Your task to perform on an android device: Empty the shopping cart on bestbuy.com. Search for usb-c on bestbuy.com, select the first entry, and add it to the cart. Image 0: 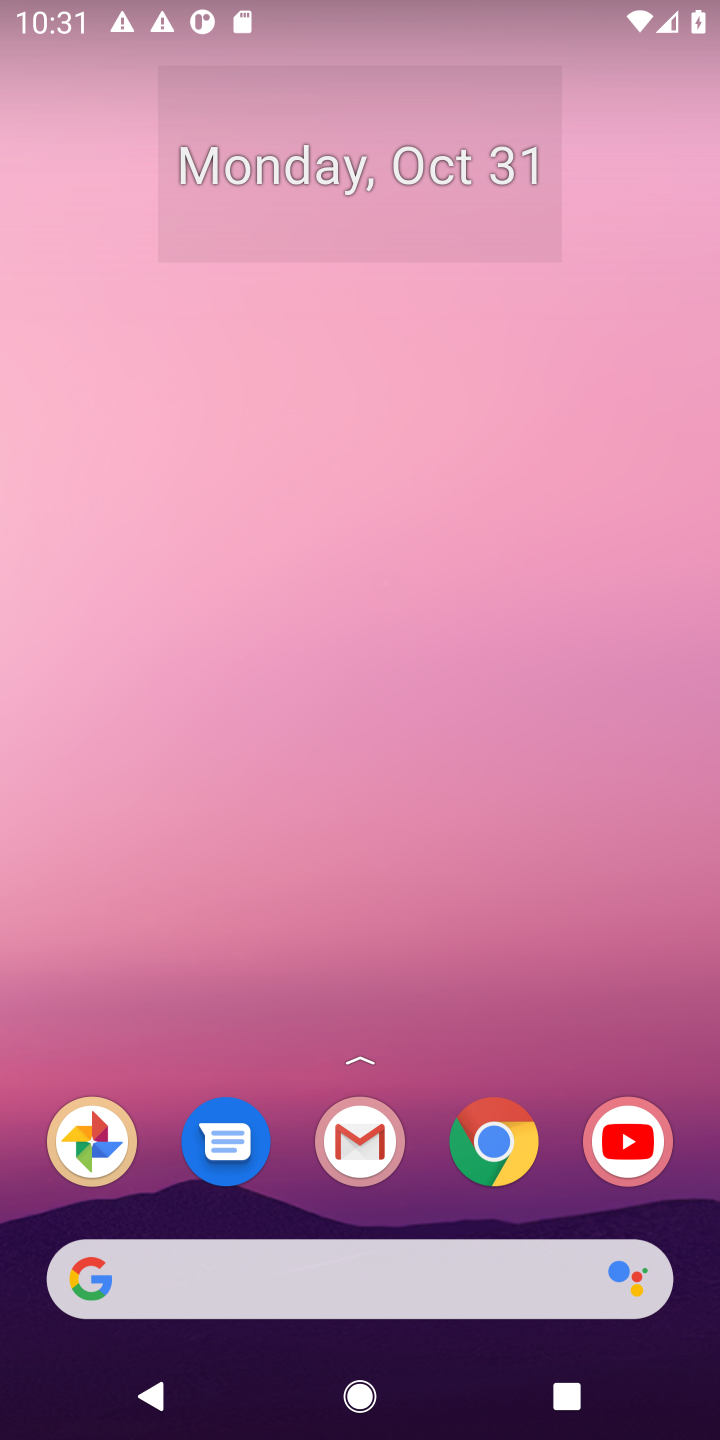
Step 0: press home button
Your task to perform on an android device: Empty the shopping cart on bestbuy.com. Search for usb-c on bestbuy.com, select the first entry, and add it to the cart. Image 1: 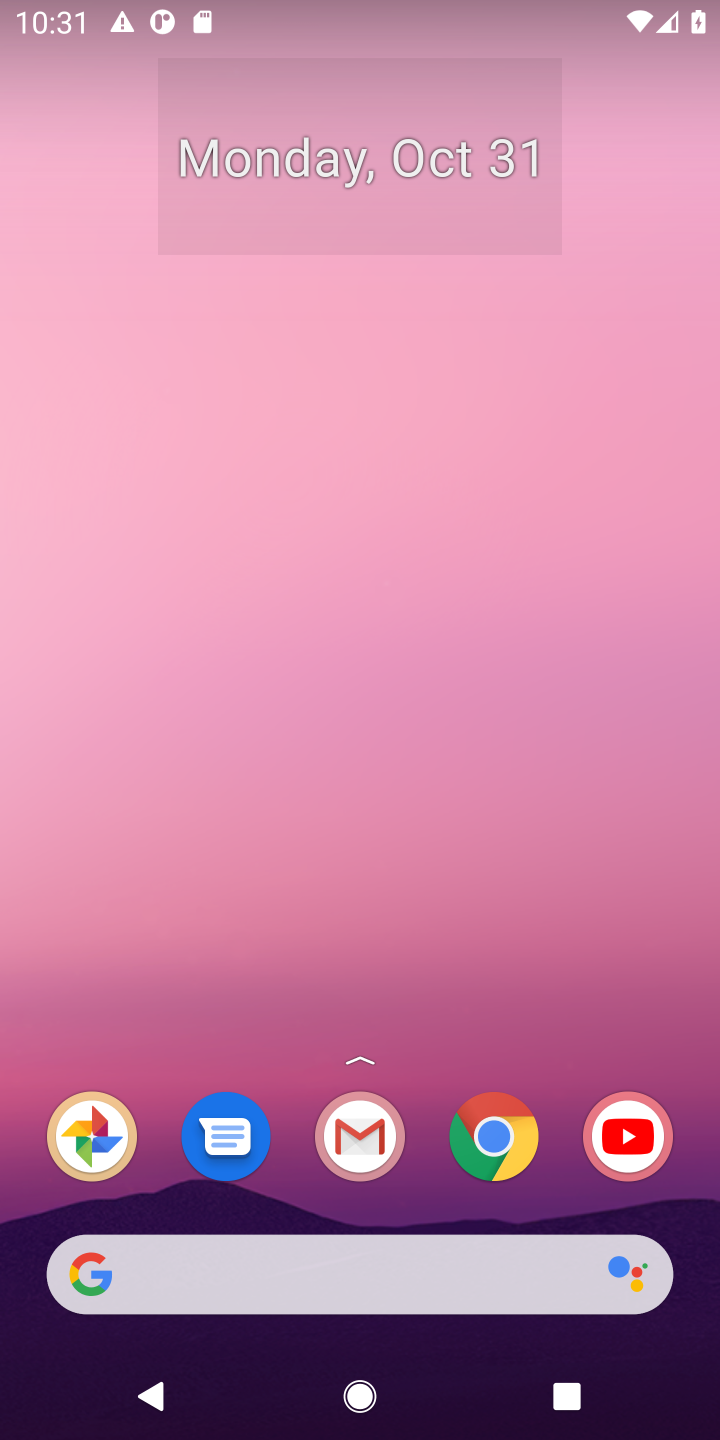
Step 1: click (145, 1285)
Your task to perform on an android device: Empty the shopping cart on bestbuy.com. Search for usb-c on bestbuy.com, select the first entry, and add it to the cart. Image 2: 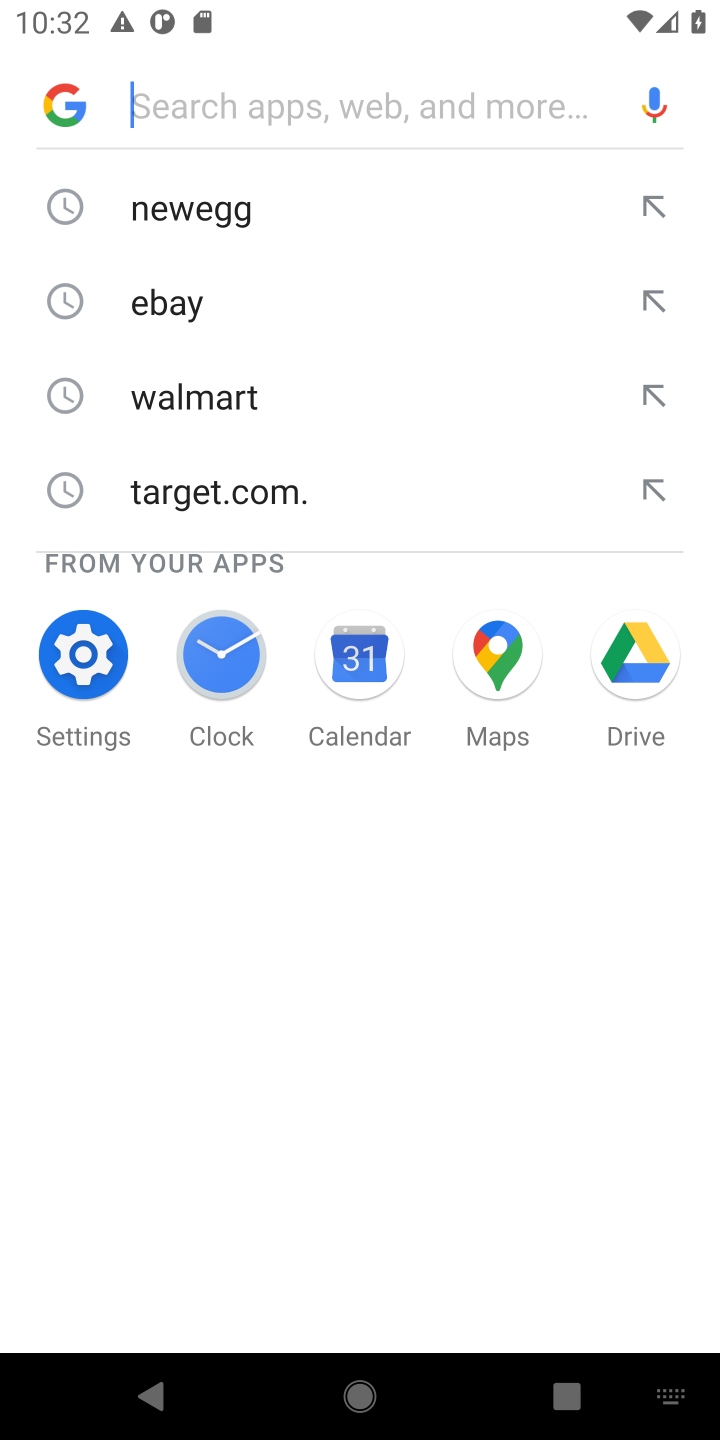
Step 2: press enter
Your task to perform on an android device: Empty the shopping cart on bestbuy.com. Search for usb-c on bestbuy.com, select the first entry, and add it to the cart. Image 3: 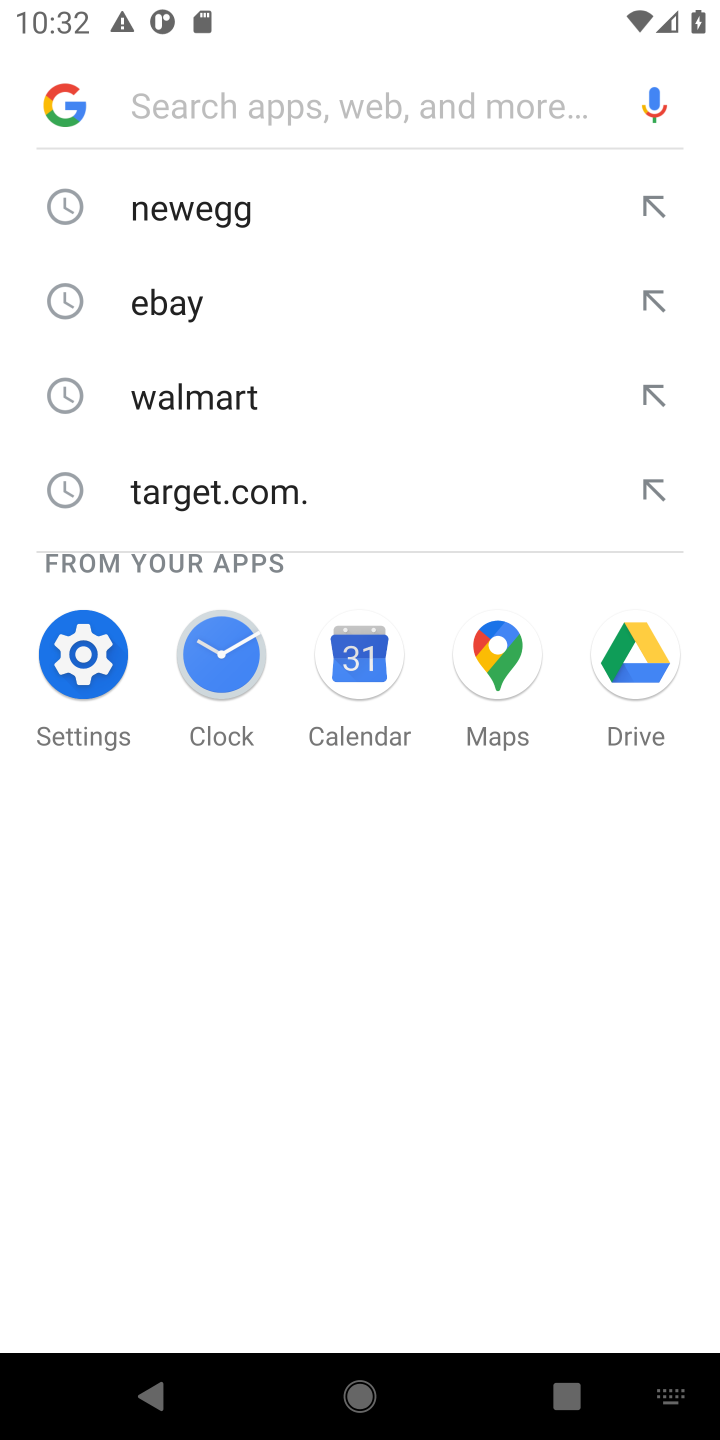
Step 3: type "bestbuy.com"
Your task to perform on an android device: Empty the shopping cart on bestbuy.com. Search for usb-c on bestbuy.com, select the first entry, and add it to the cart. Image 4: 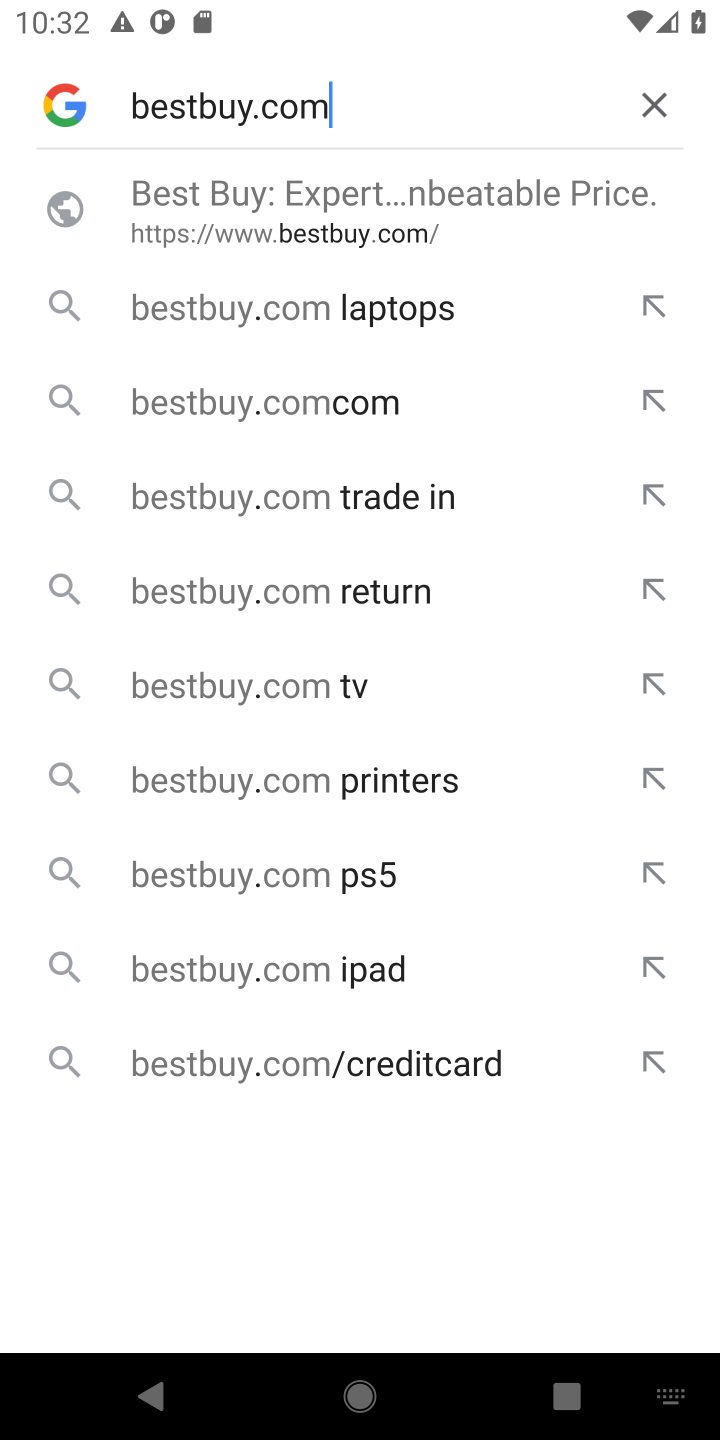
Step 4: press enter
Your task to perform on an android device: Empty the shopping cart on bestbuy.com. Search for usb-c on bestbuy.com, select the first entry, and add it to the cart. Image 5: 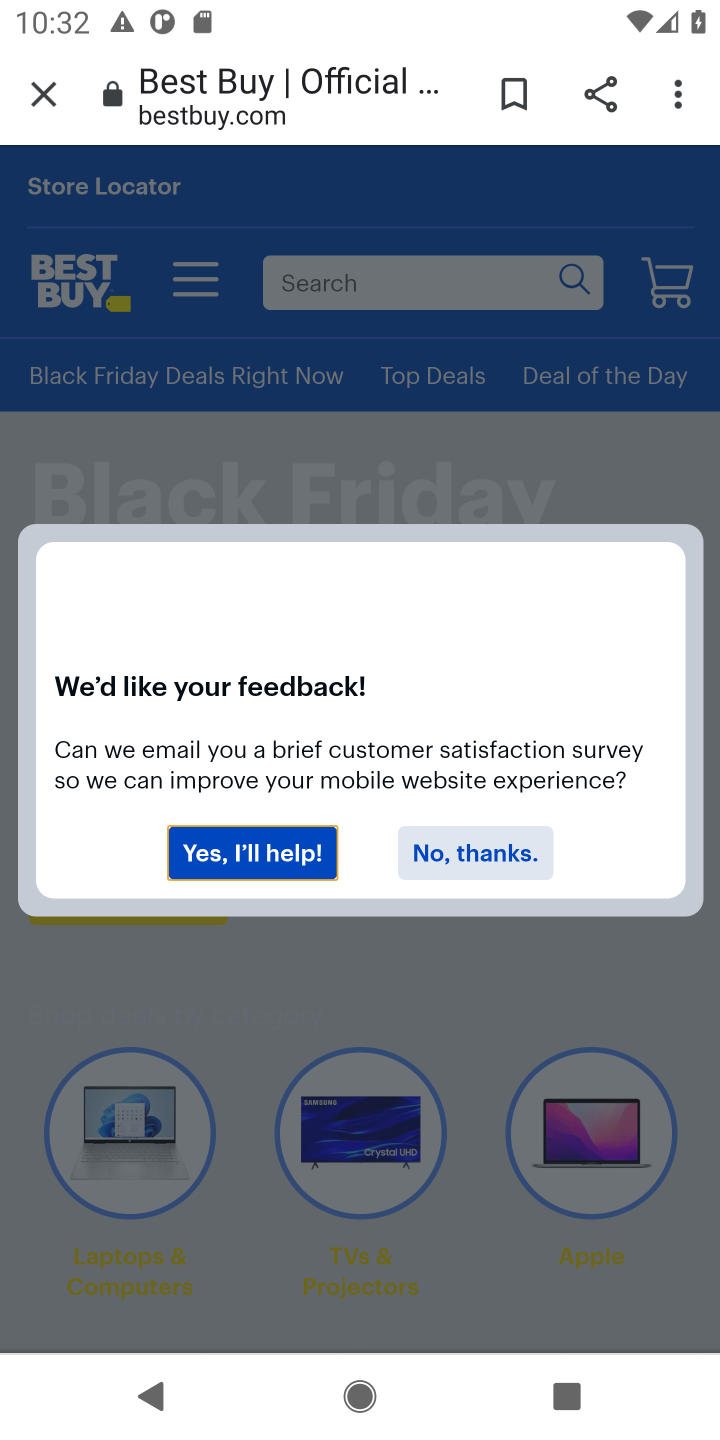
Step 5: click (672, 276)
Your task to perform on an android device: Empty the shopping cart on bestbuy.com. Search for usb-c on bestbuy.com, select the first entry, and add it to the cart. Image 6: 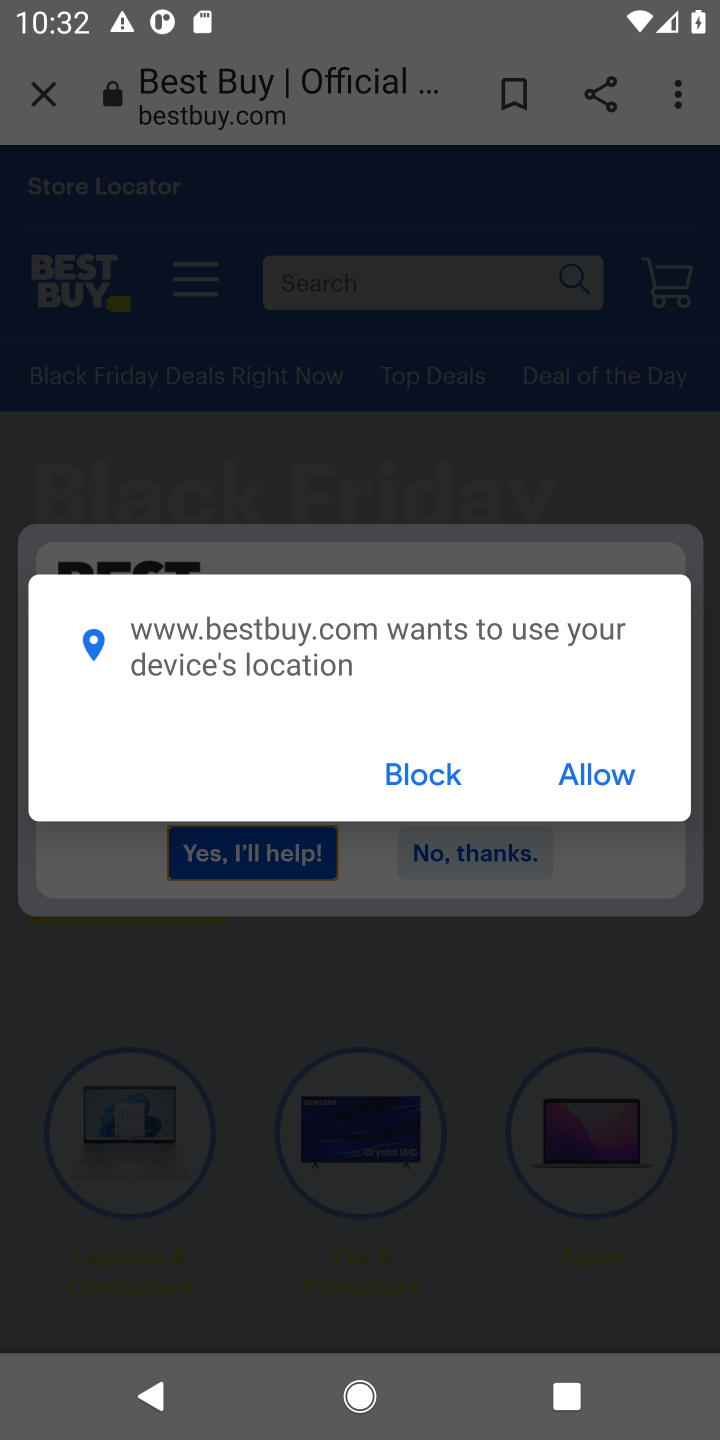
Step 6: click (412, 780)
Your task to perform on an android device: Empty the shopping cart on bestbuy.com. Search for usb-c on bestbuy.com, select the first entry, and add it to the cart. Image 7: 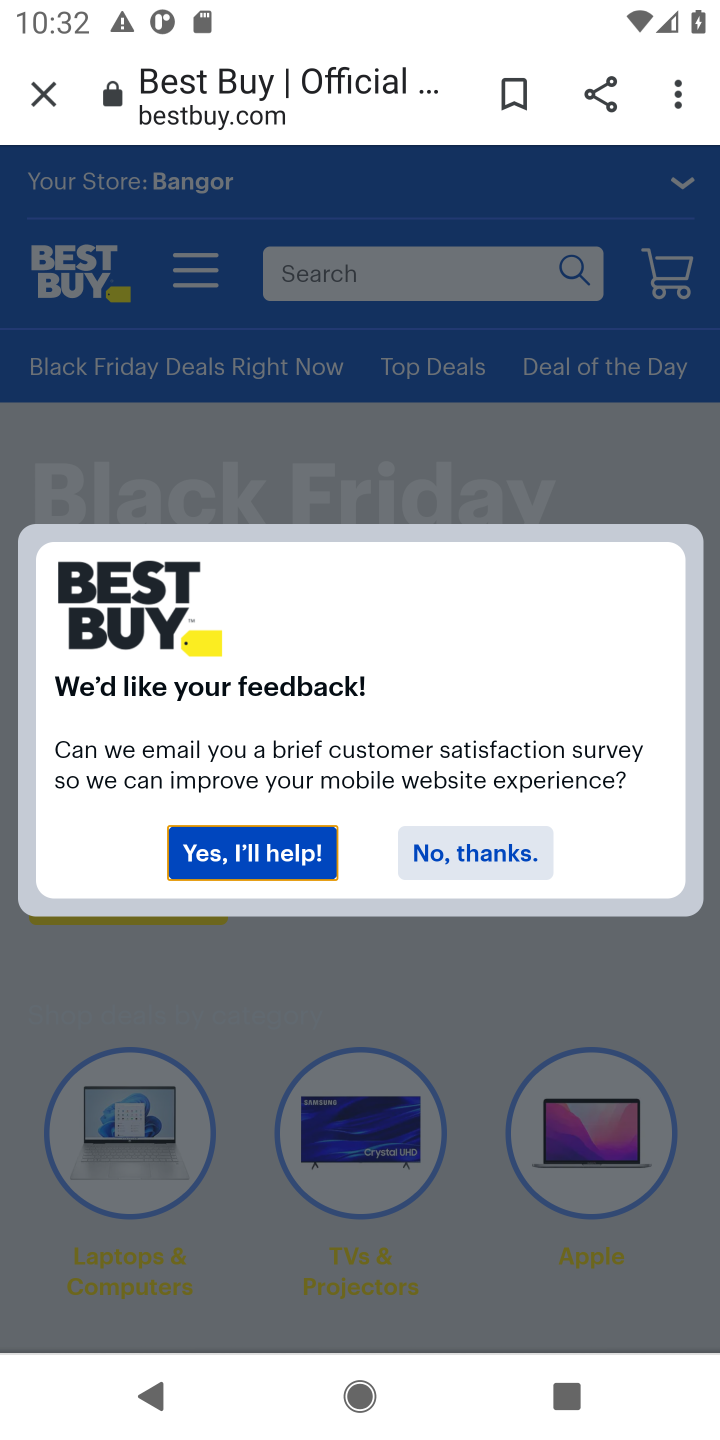
Step 7: click (505, 848)
Your task to perform on an android device: Empty the shopping cart on bestbuy.com. Search for usb-c on bestbuy.com, select the first entry, and add it to the cart. Image 8: 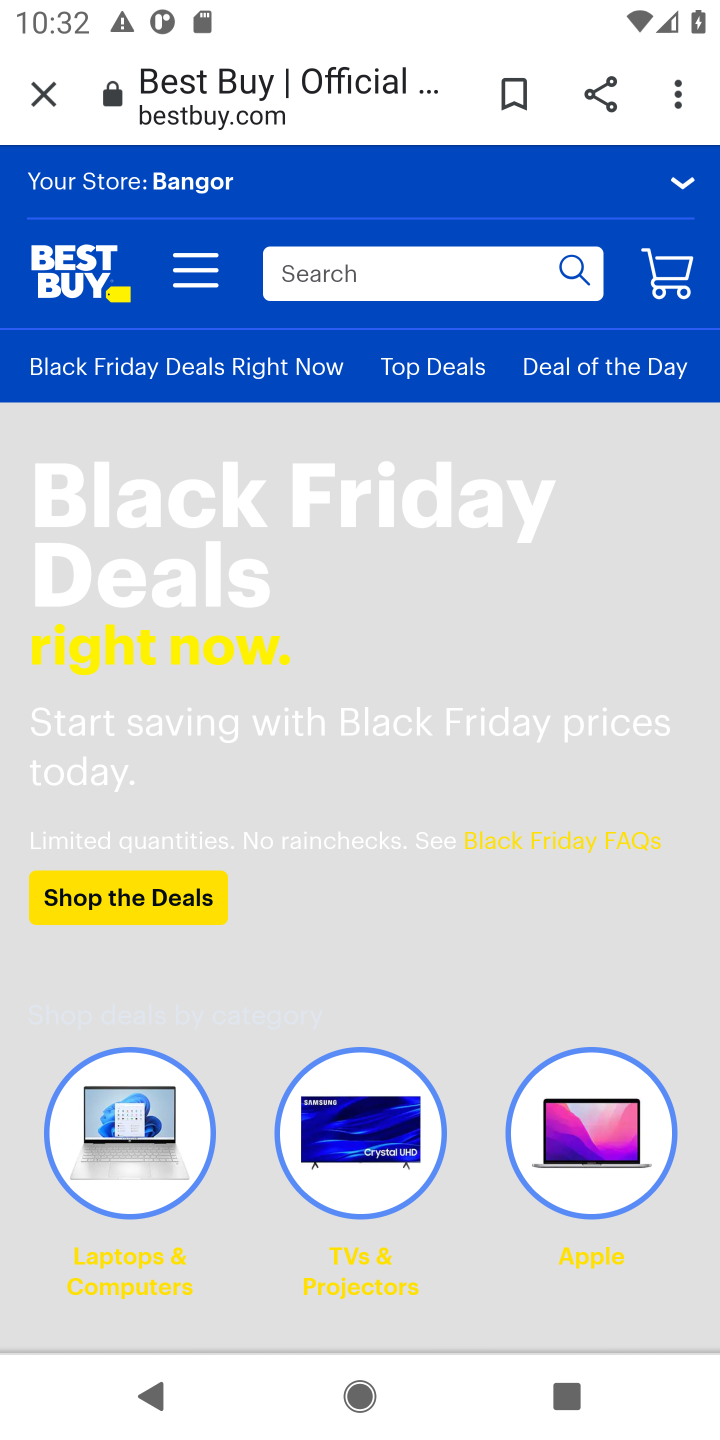
Step 8: click (667, 277)
Your task to perform on an android device: Empty the shopping cart on bestbuy.com. Search for usb-c on bestbuy.com, select the first entry, and add it to the cart. Image 9: 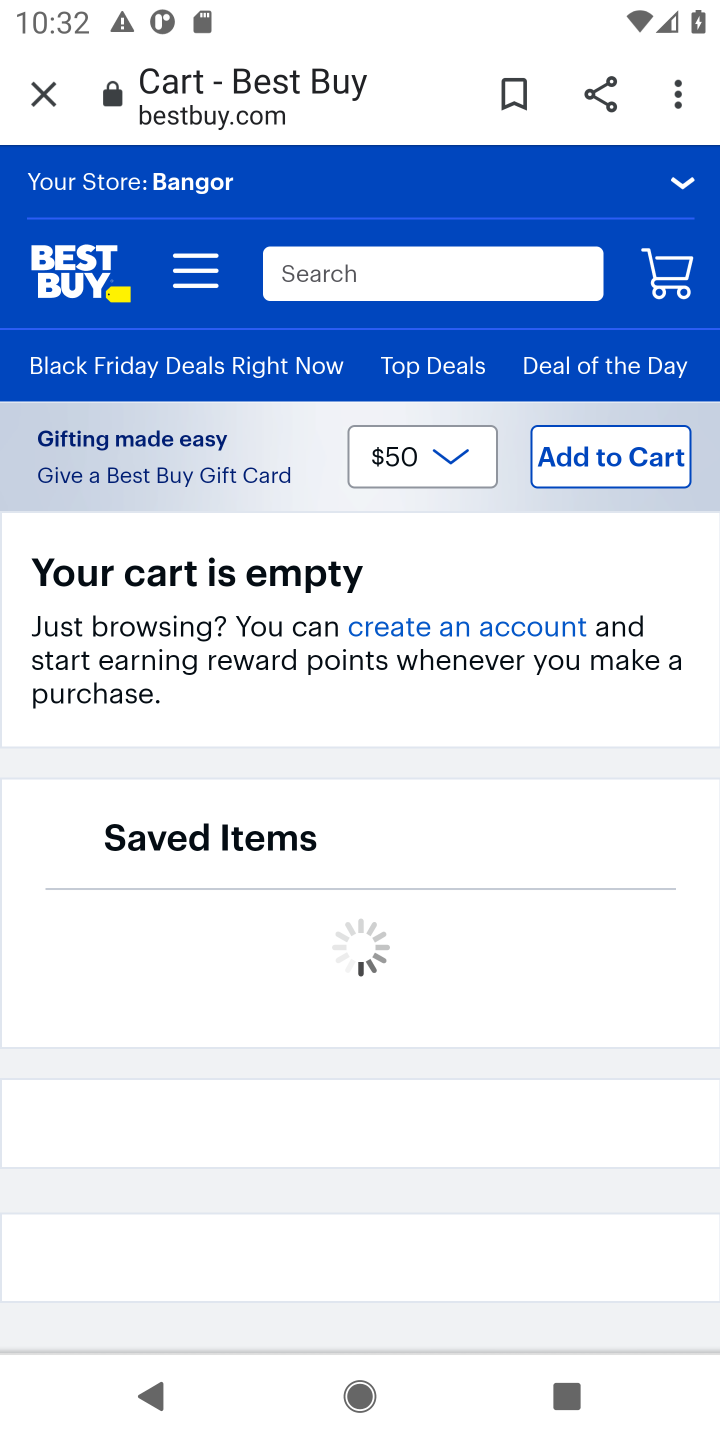
Step 9: click (322, 277)
Your task to perform on an android device: Empty the shopping cart on bestbuy.com. Search for usb-c on bestbuy.com, select the first entry, and add it to the cart. Image 10: 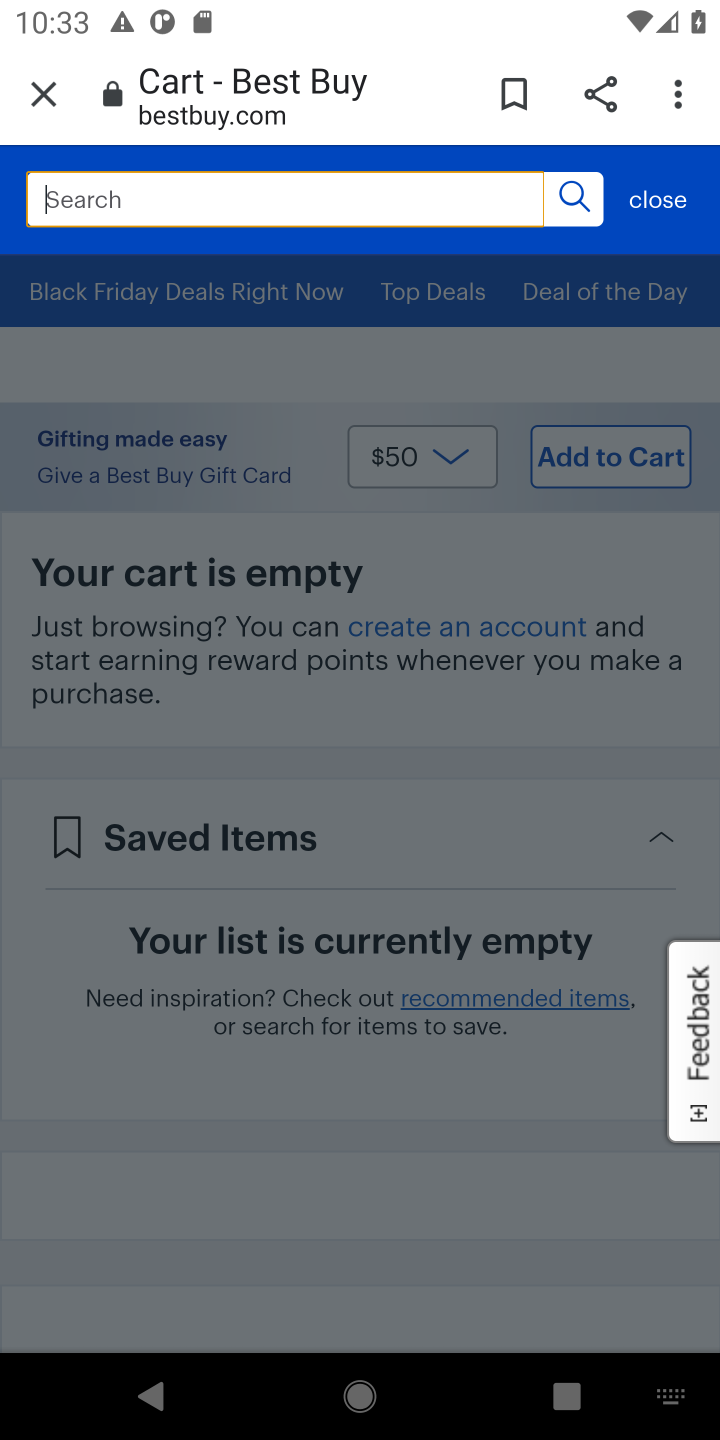
Step 10: type "usb-c"
Your task to perform on an android device: Empty the shopping cart on bestbuy.com. Search for usb-c on bestbuy.com, select the first entry, and add it to the cart. Image 11: 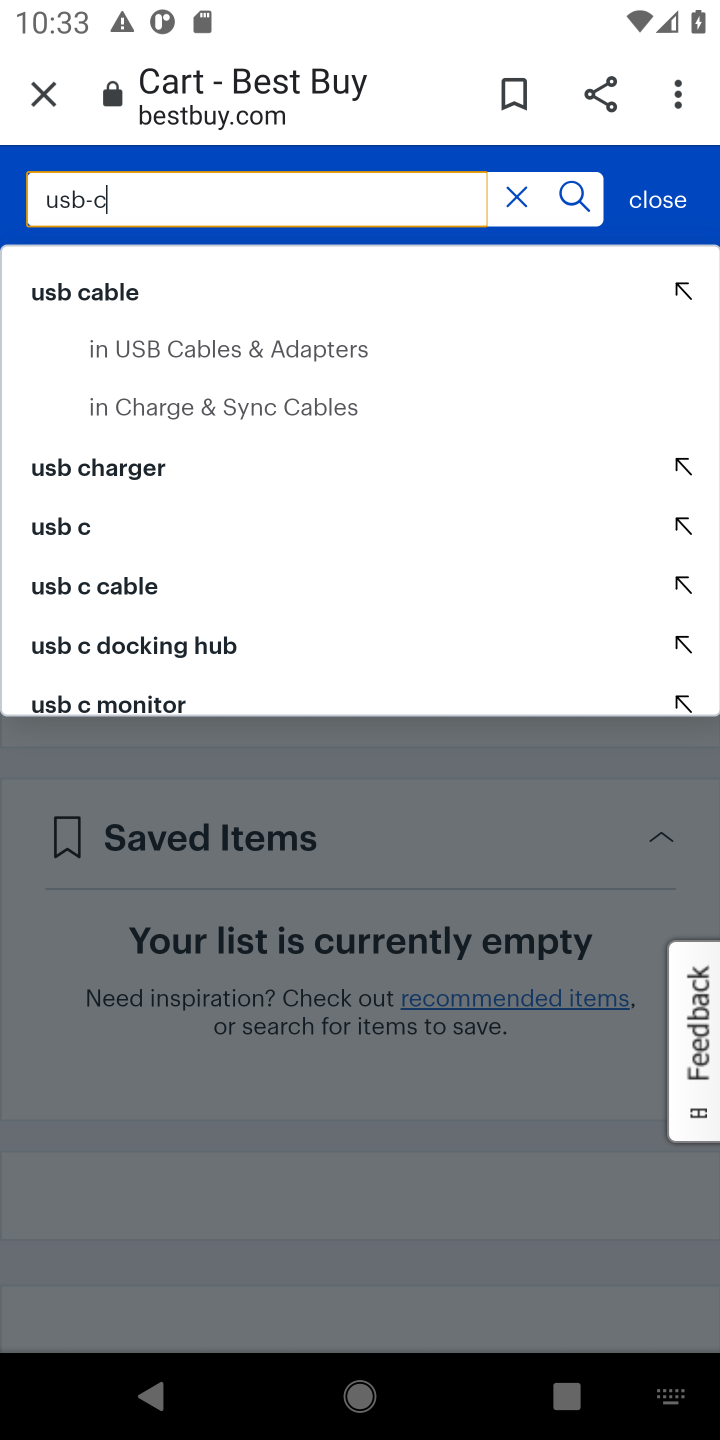
Step 11: press enter
Your task to perform on an android device: Empty the shopping cart on bestbuy.com. Search for usb-c on bestbuy.com, select the first entry, and add it to the cart. Image 12: 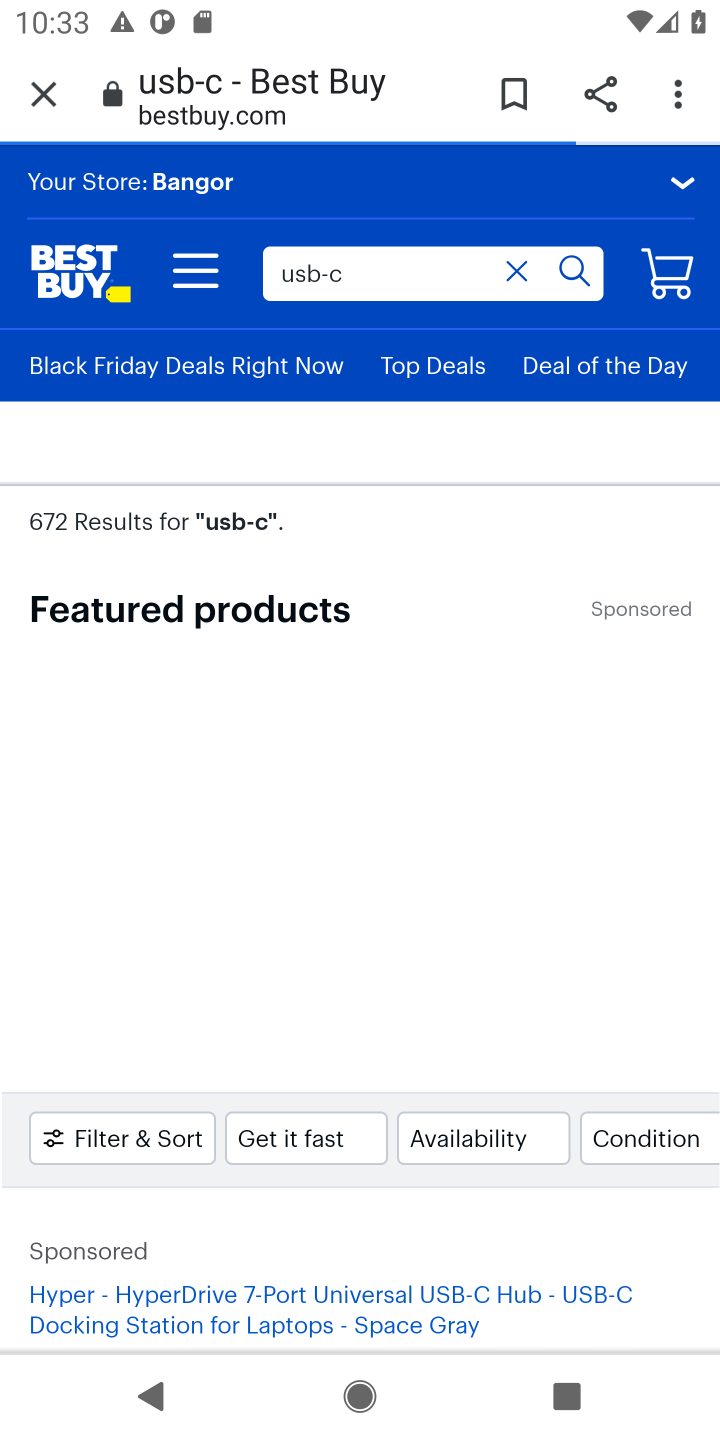
Step 12: drag from (362, 1055) to (411, 474)
Your task to perform on an android device: Empty the shopping cart on bestbuy.com. Search for usb-c on bestbuy.com, select the first entry, and add it to the cart. Image 13: 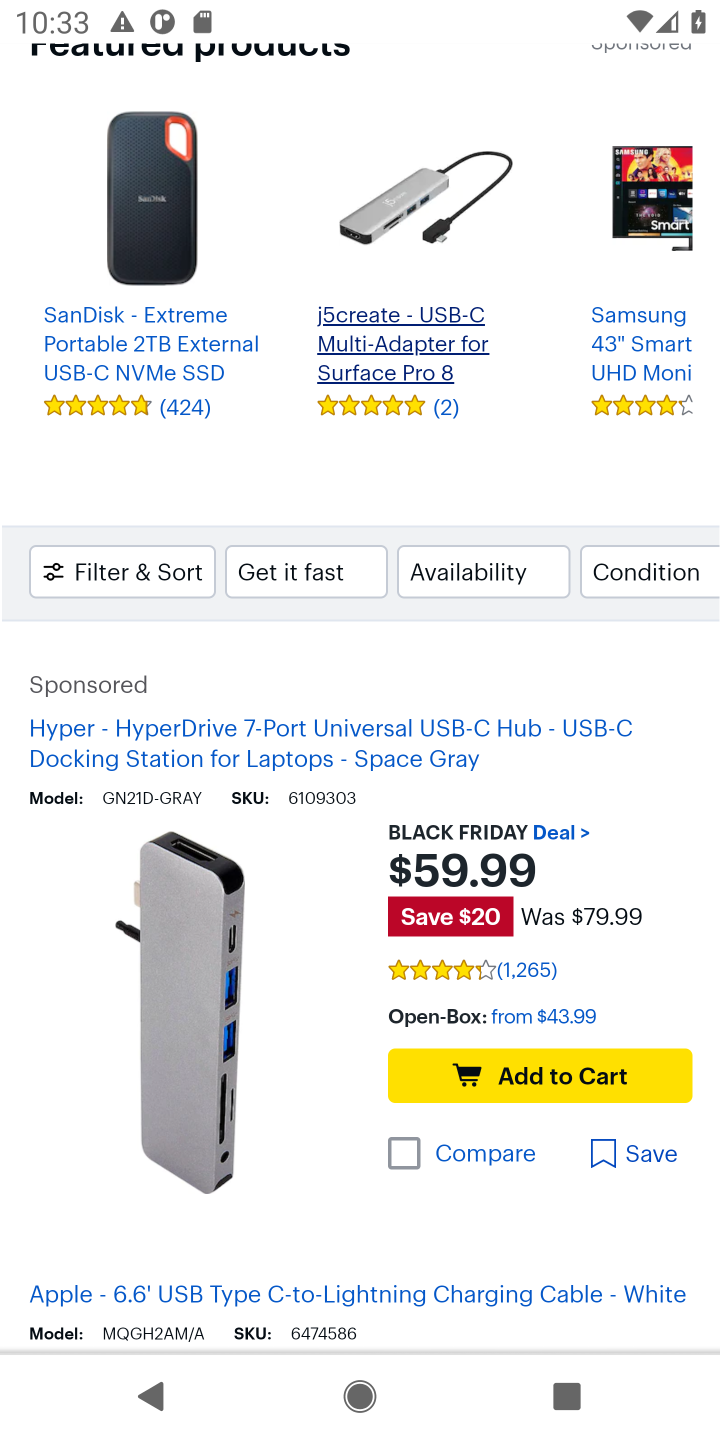
Step 13: drag from (366, 1082) to (364, 634)
Your task to perform on an android device: Empty the shopping cart on bestbuy.com. Search for usb-c on bestbuy.com, select the first entry, and add it to the cart. Image 14: 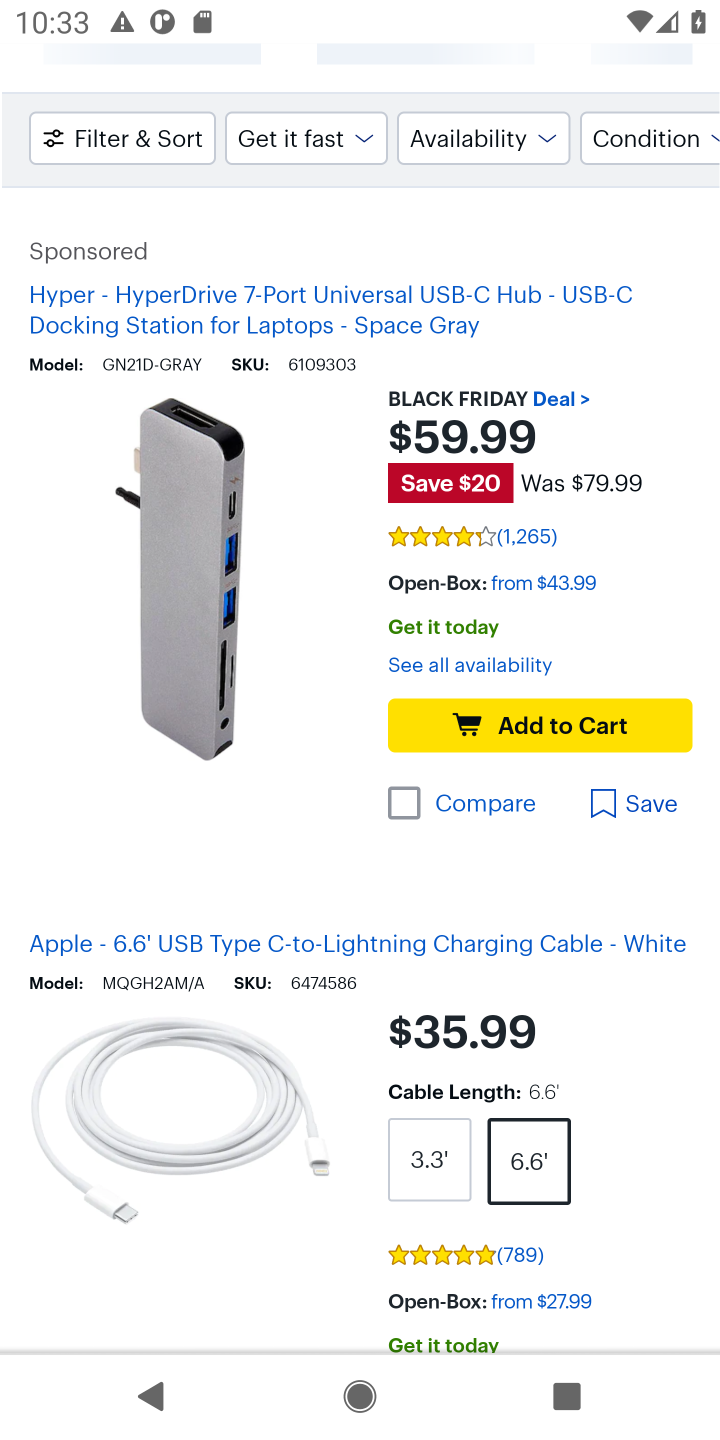
Step 14: drag from (254, 1124) to (264, 751)
Your task to perform on an android device: Empty the shopping cart on bestbuy.com. Search for usb-c on bestbuy.com, select the first entry, and add it to the cart. Image 15: 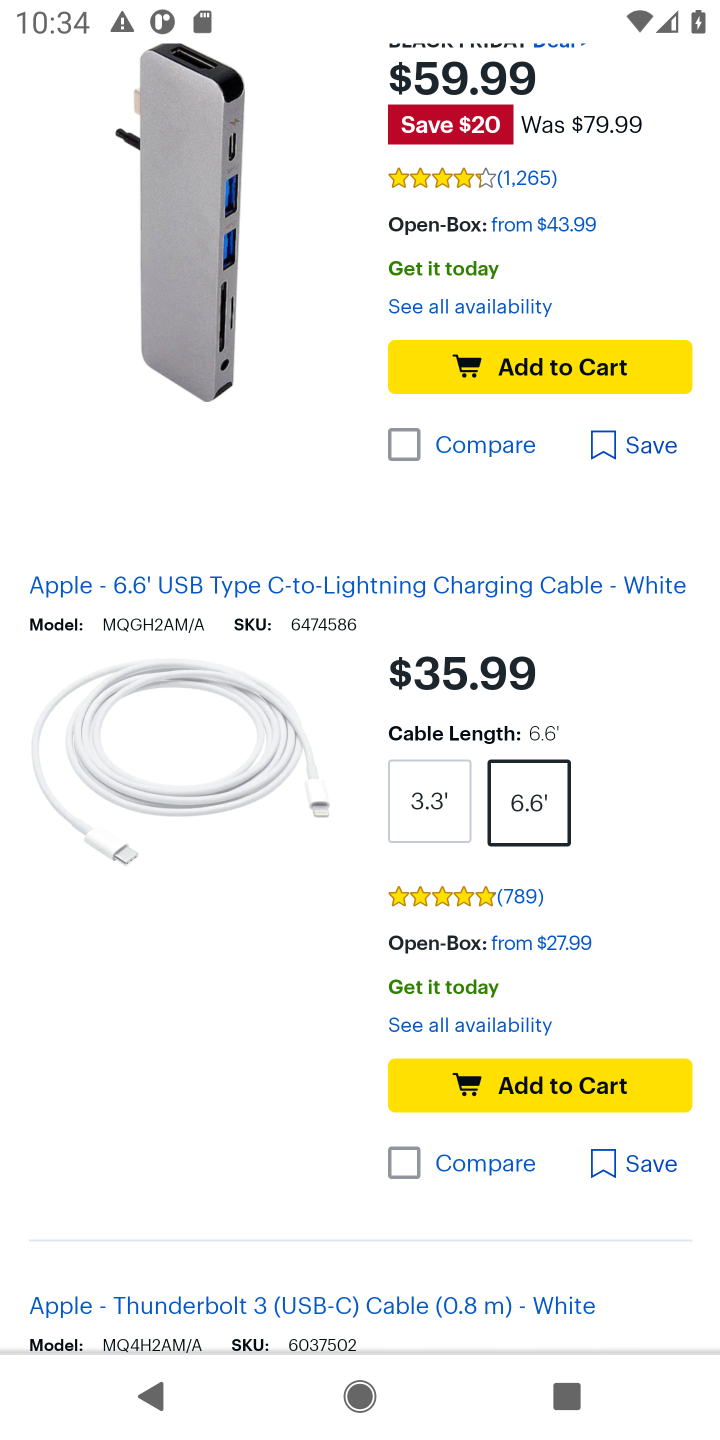
Step 15: click (562, 1078)
Your task to perform on an android device: Empty the shopping cart on bestbuy.com. Search for usb-c on bestbuy.com, select the first entry, and add it to the cart. Image 16: 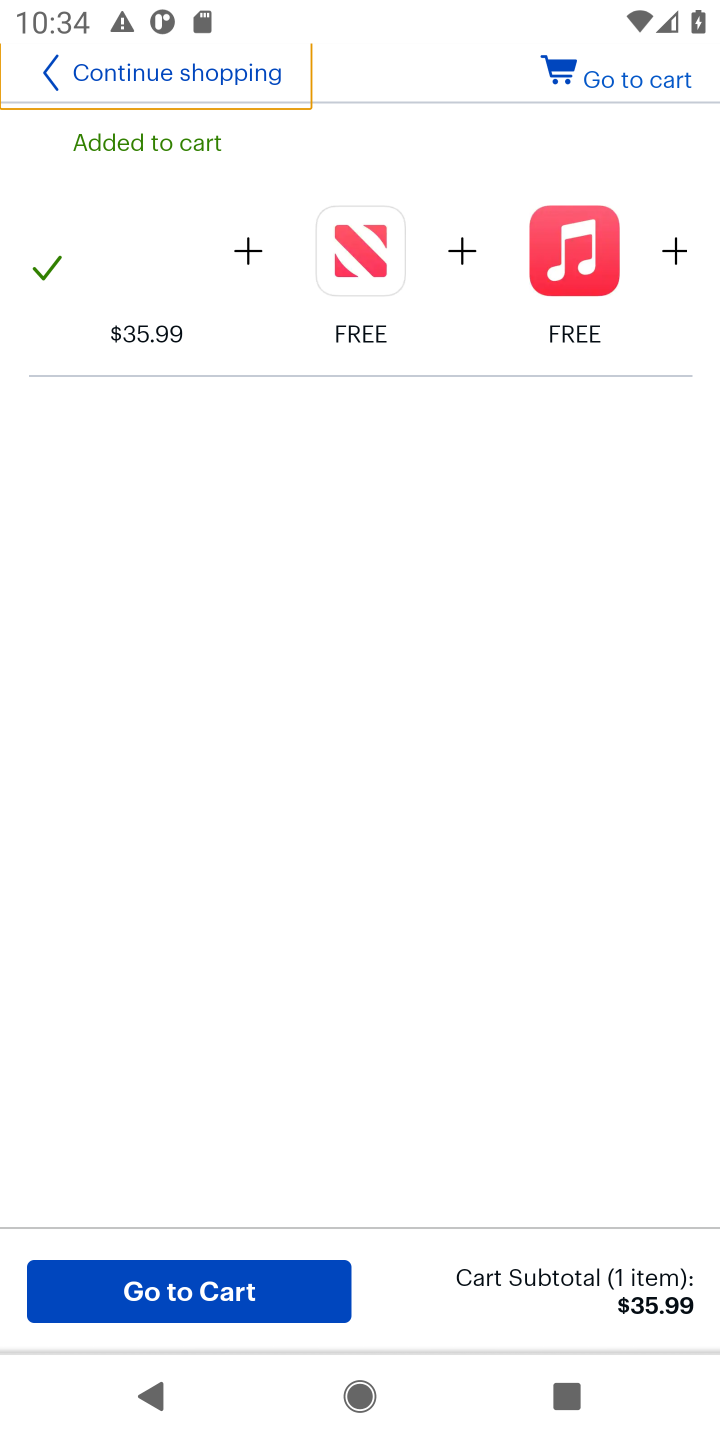
Step 16: task complete